Your task to perform on an android device: toggle priority inbox in the gmail app Image 0: 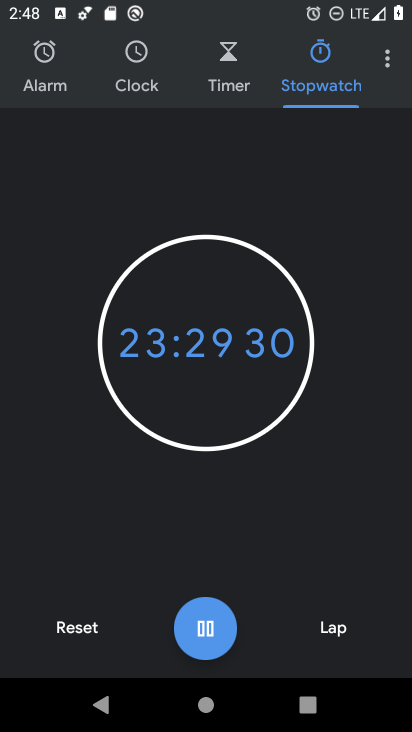
Step 0: press home button
Your task to perform on an android device: toggle priority inbox in the gmail app Image 1: 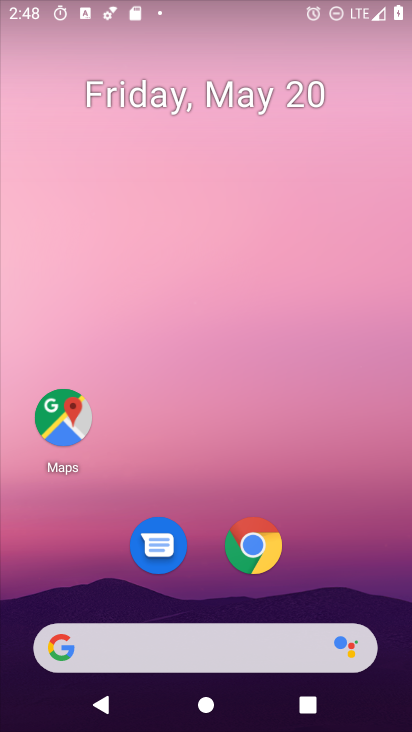
Step 1: drag from (291, 646) to (306, 139)
Your task to perform on an android device: toggle priority inbox in the gmail app Image 2: 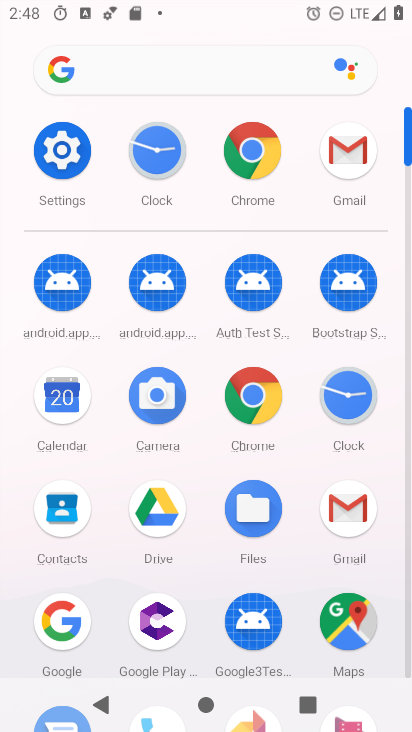
Step 2: click (332, 498)
Your task to perform on an android device: toggle priority inbox in the gmail app Image 3: 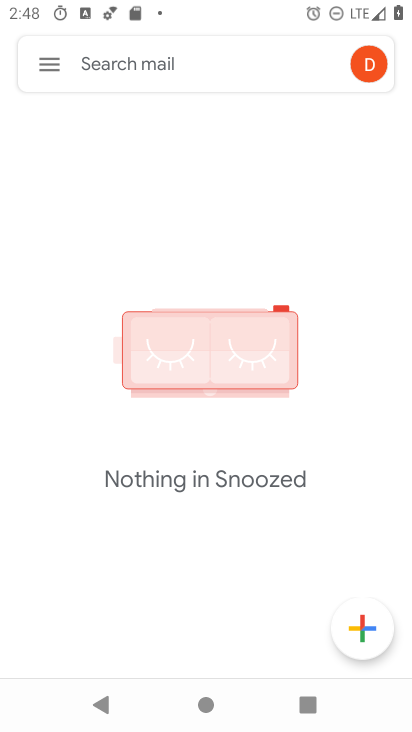
Step 3: click (40, 66)
Your task to perform on an android device: toggle priority inbox in the gmail app Image 4: 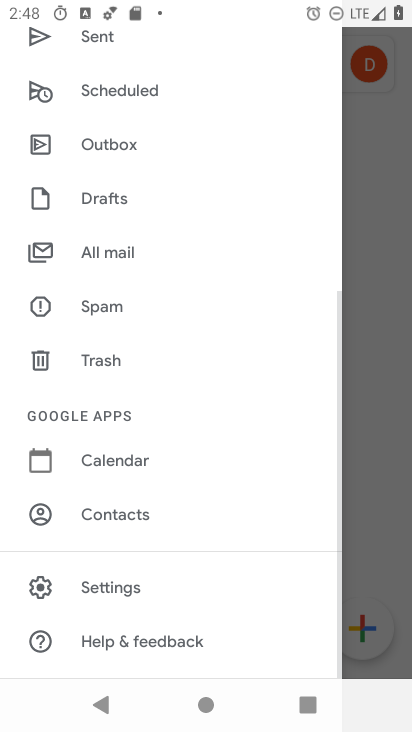
Step 4: click (140, 588)
Your task to perform on an android device: toggle priority inbox in the gmail app Image 5: 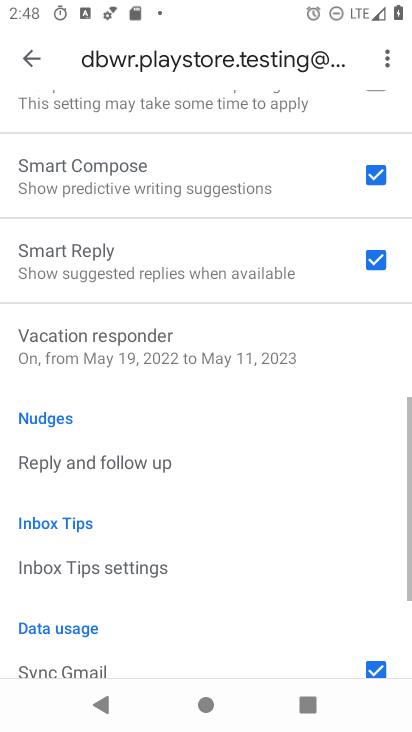
Step 5: drag from (224, 257) to (243, 681)
Your task to perform on an android device: toggle priority inbox in the gmail app Image 6: 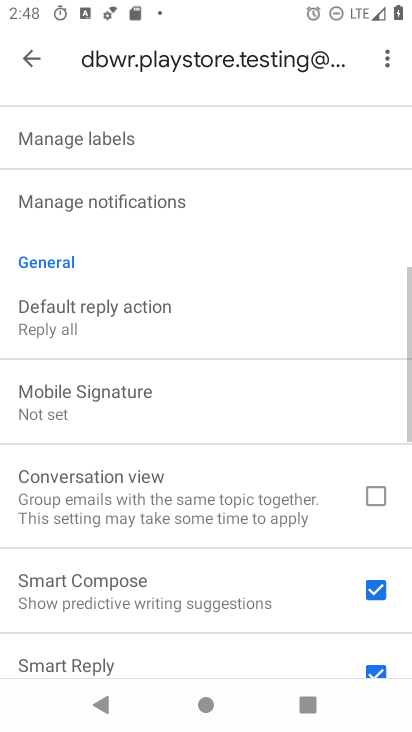
Step 6: drag from (194, 147) to (169, 649)
Your task to perform on an android device: toggle priority inbox in the gmail app Image 7: 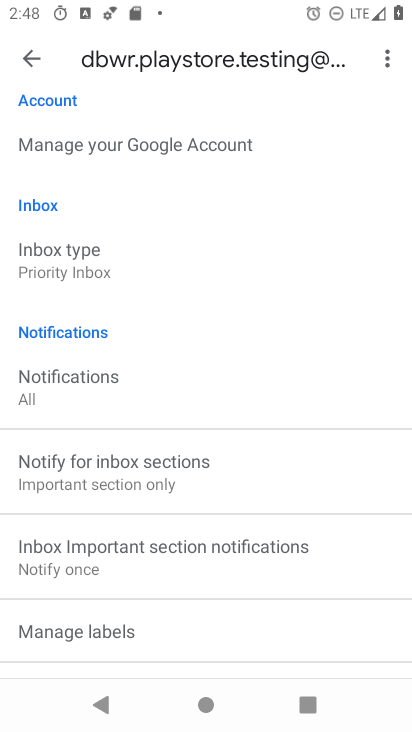
Step 7: click (93, 258)
Your task to perform on an android device: toggle priority inbox in the gmail app Image 8: 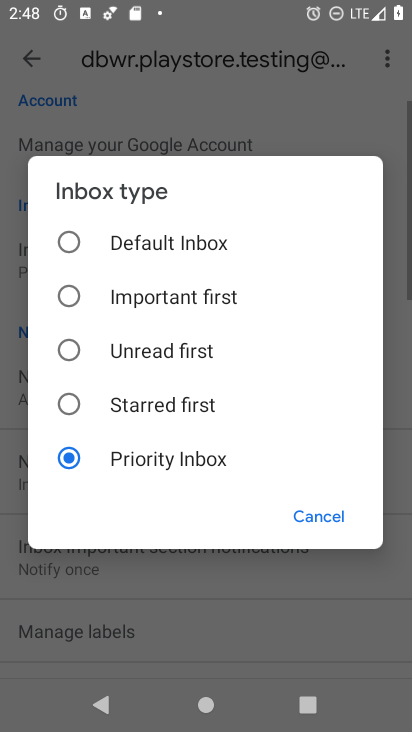
Step 8: click (136, 246)
Your task to perform on an android device: toggle priority inbox in the gmail app Image 9: 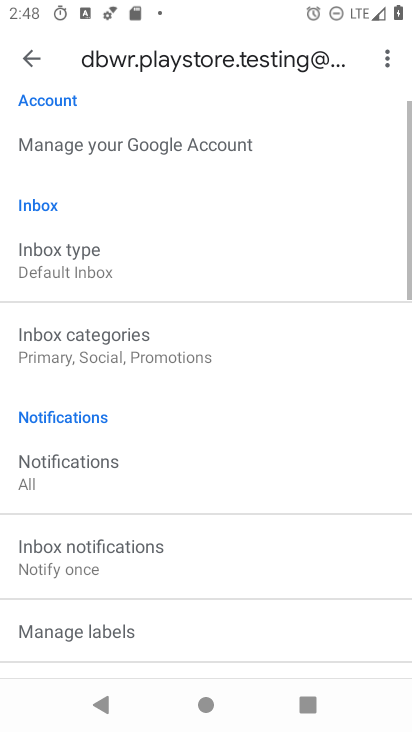
Step 9: task complete